Your task to perform on an android device: toggle data saver in the chrome app Image 0: 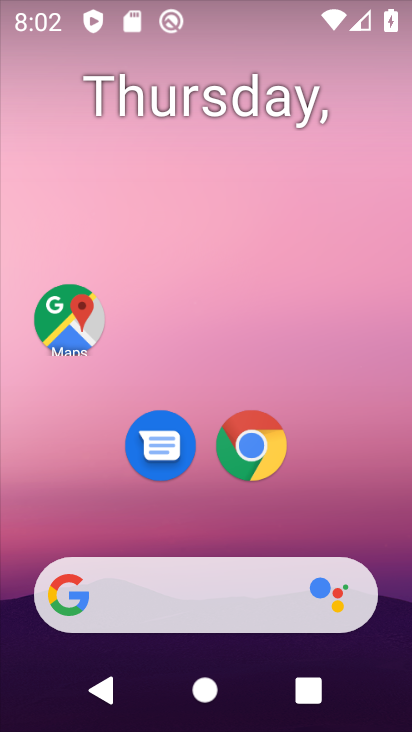
Step 0: click (248, 427)
Your task to perform on an android device: toggle data saver in the chrome app Image 1: 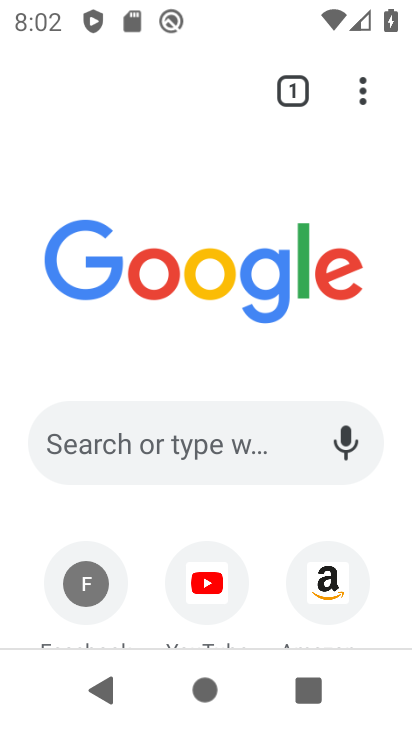
Step 1: click (356, 100)
Your task to perform on an android device: toggle data saver in the chrome app Image 2: 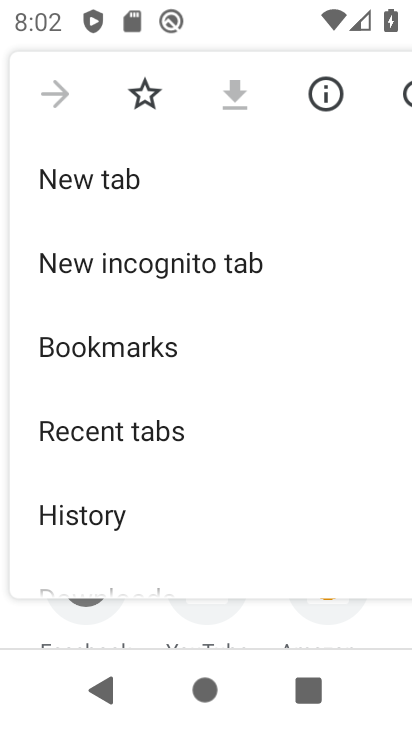
Step 2: drag from (202, 456) to (214, 37)
Your task to perform on an android device: toggle data saver in the chrome app Image 3: 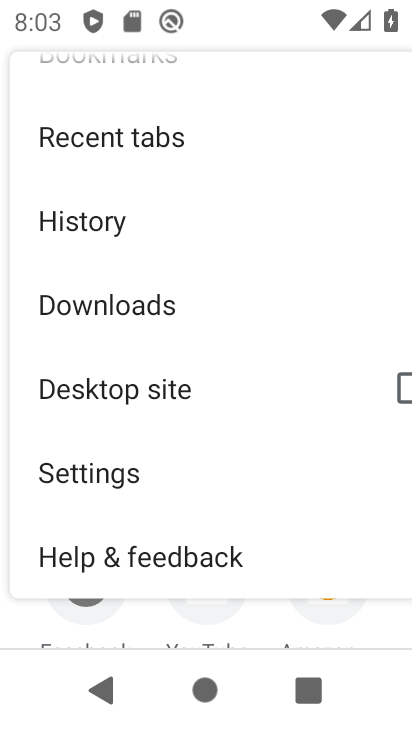
Step 3: drag from (181, 362) to (169, 79)
Your task to perform on an android device: toggle data saver in the chrome app Image 4: 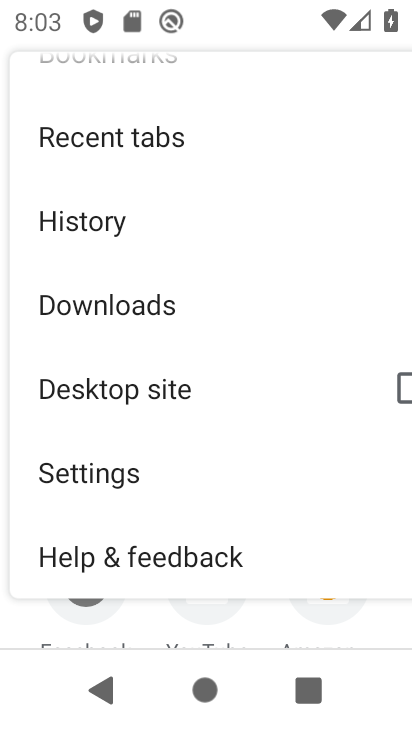
Step 4: click (73, 472)
Your task to perform on an android device: toggle data saver in the chrome app Image 5: 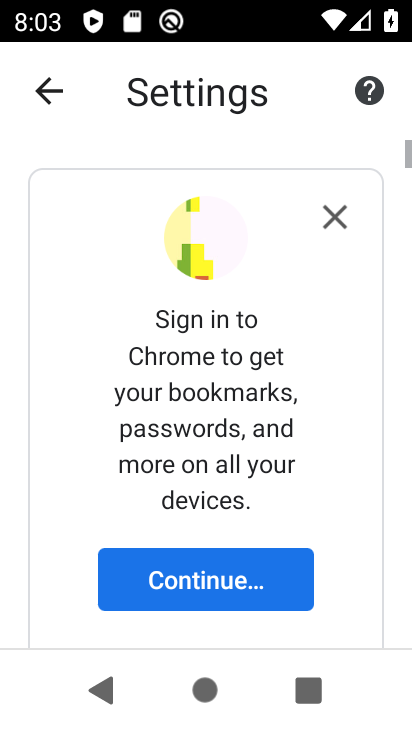
Step 5: drag from (265, 608) to (234, 142)
Your task to perform on an android device: toggle data saver in the chrome app Image 6: 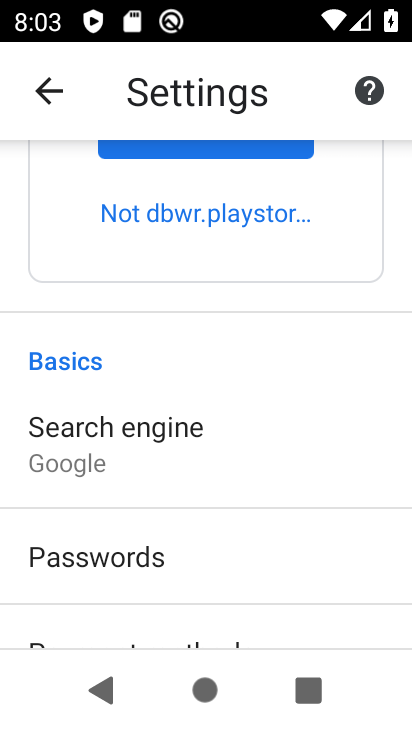
Step 6: drag from (220, 474) to (179, 106)
Your task to perform on an android device: toggle data saver in the chrome app Image 7: 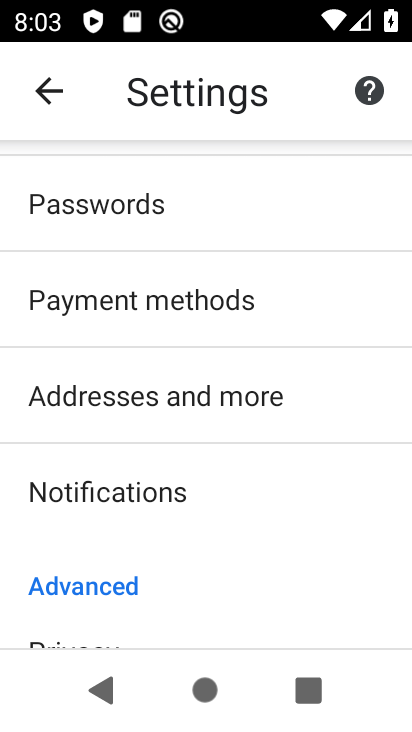
Step 7: drag from (244, 510) to (204, 146)
Your task to perform on an android device: toggle data saver in the chrome app Image 8: 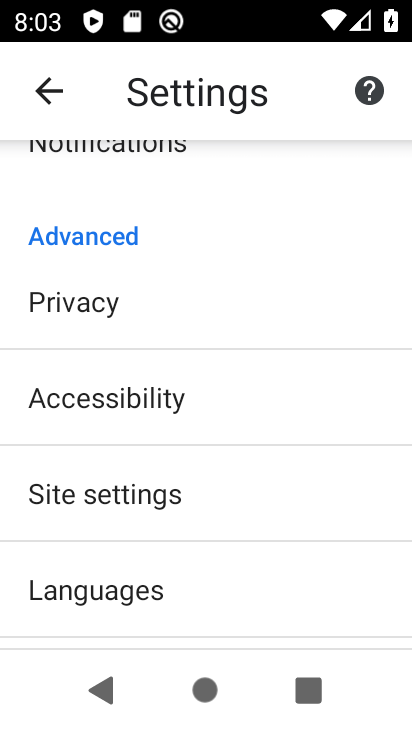
Step 8: drag from (196, 475) to (174, 188)
Your task to perform on an android device: toggle data saver in the chrome app Image 9: 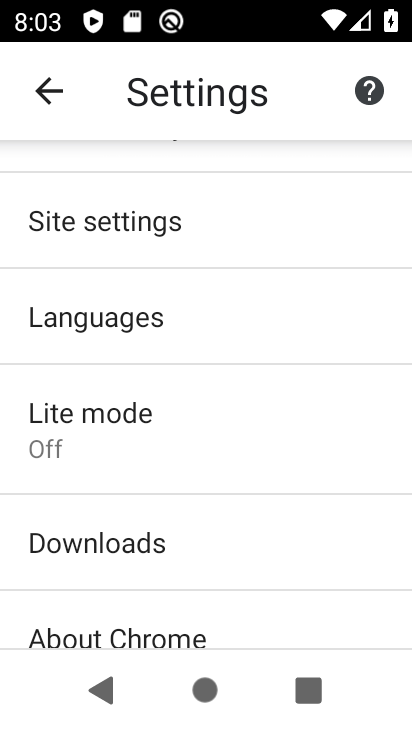
Step 9: click (42, 431)
Your task to perform on an android device: toggle data saver in the chrome app Image 10: 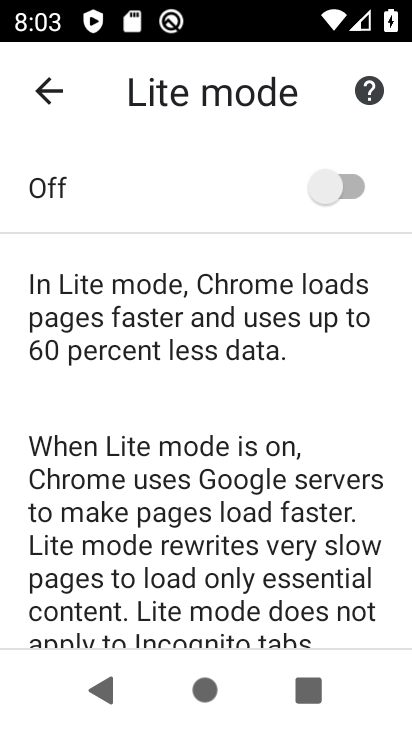
Step 10: click (314, 192)
Your task to perform on an android device: toggle data saver in the chrome app Image 11: 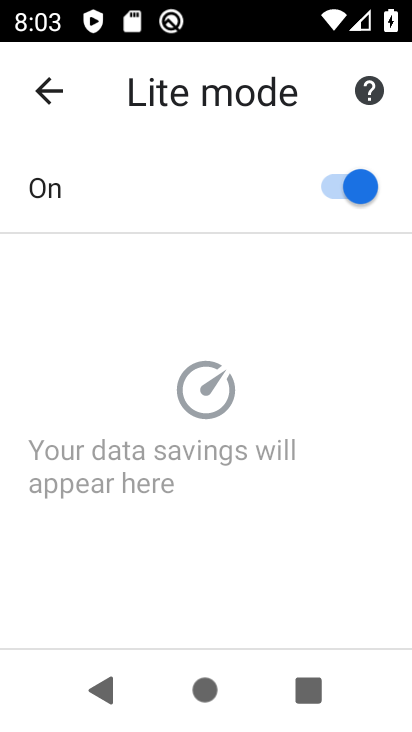
Step 11: task complete